Your task to perform on an android device: turn off location Image 0: 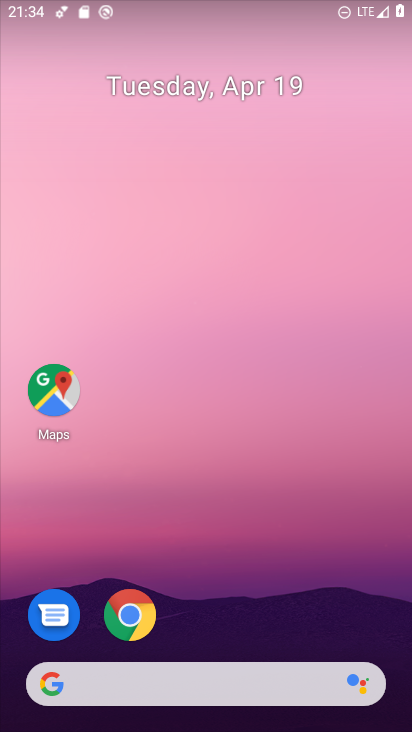
Step 0: drag from (245, 639) to (224, 71)
Your task to perform on an android device: turn off location Image 1: 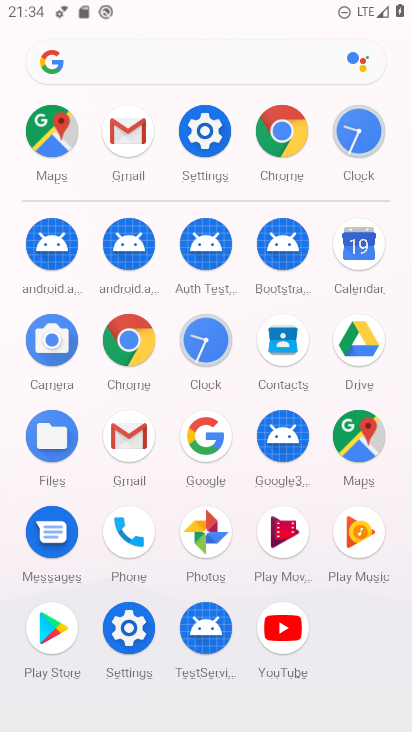
Step 1: click (138, 624)
Your task to perform on an android device: turn off location Image 2: 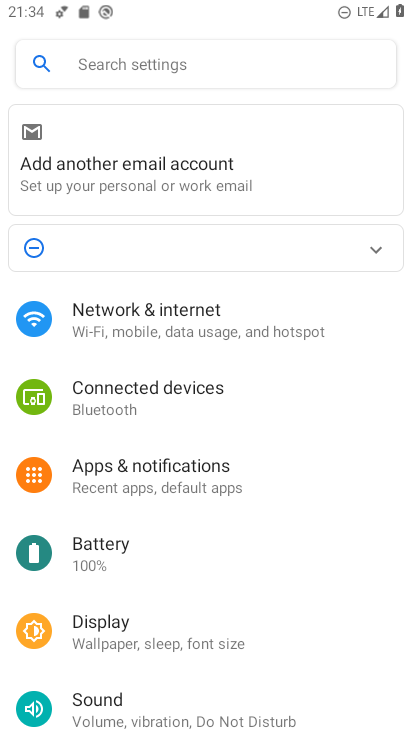
Step 2: drag from (115, 658) to (128, 125)
Your task to perform on an android device: turn off location Image 3: 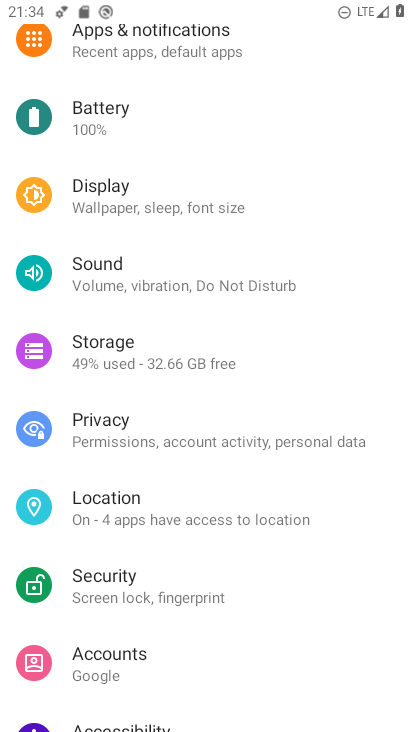
Step 3: click (19, 503)
Your task to perform on an android device: turn off location Image 4: 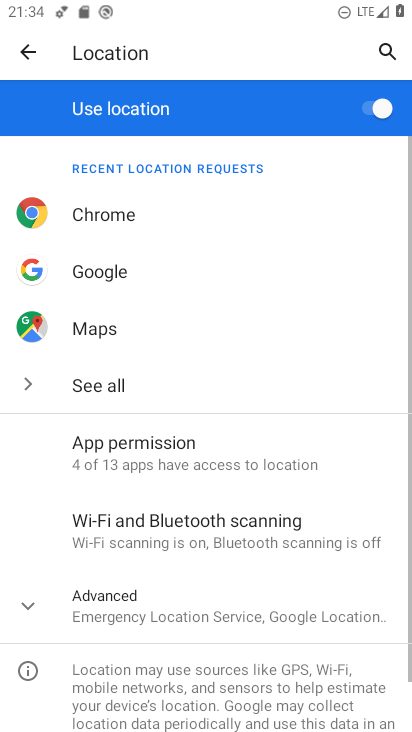
Step 4: click (376, 115)
Your task to perform on an android device: turn off location Image 5: 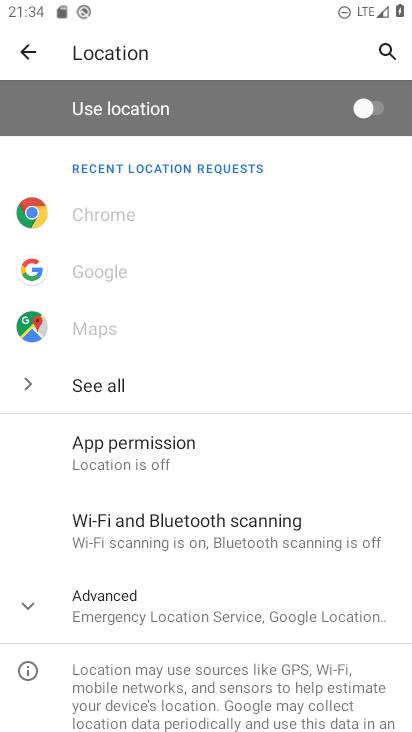
Step 5: task complete